Your task to perform on an android device: What's the weather like in Paris? Image 0: 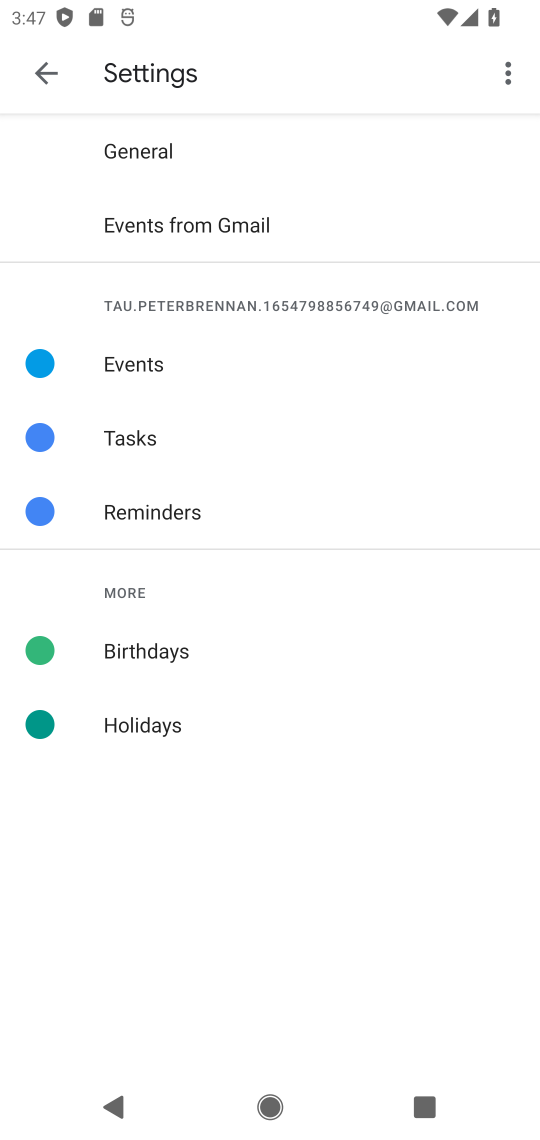
Step 0: press home button
Your task to perform on an android device: What's the weather like in Paris? Image 1: 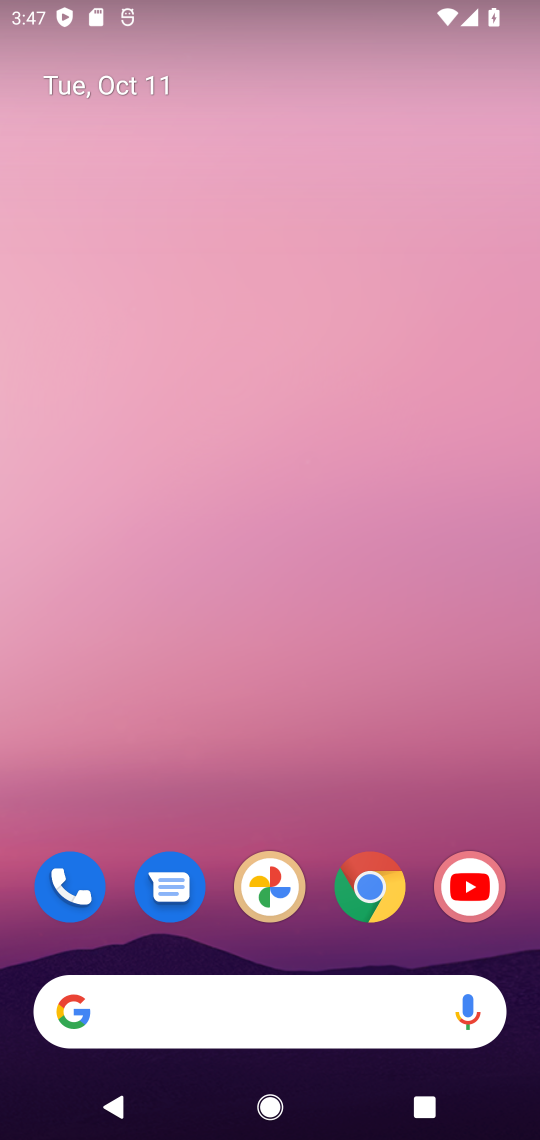
Step 1: click (372, 905)
Your task to perform on an android device: What's the weather like in Paris? Image 2: 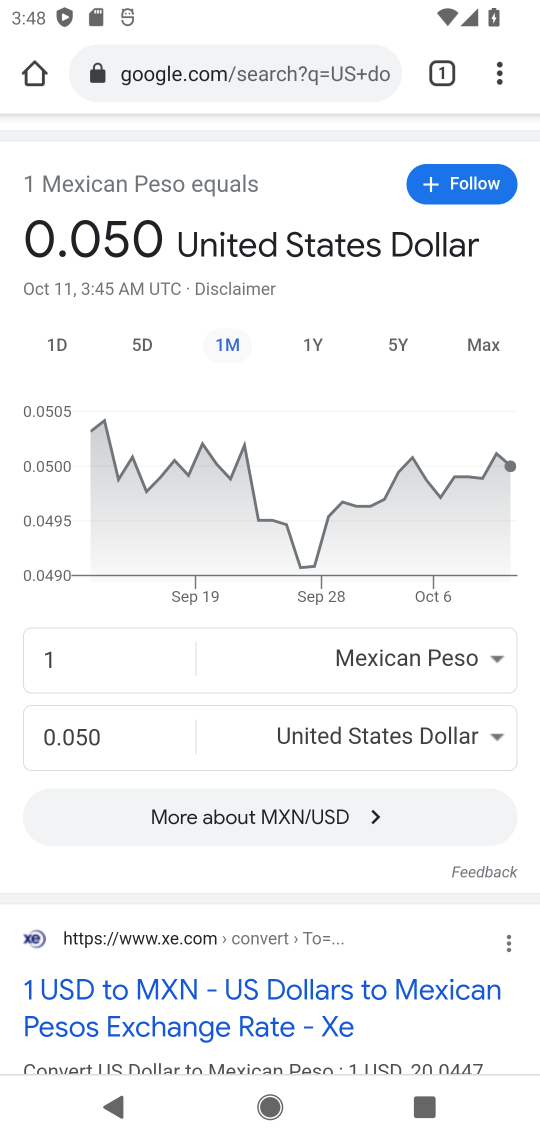
Step 2: click (199, 79)
Your task to perform on an android device: What's the weather like in Paris? Image 3: 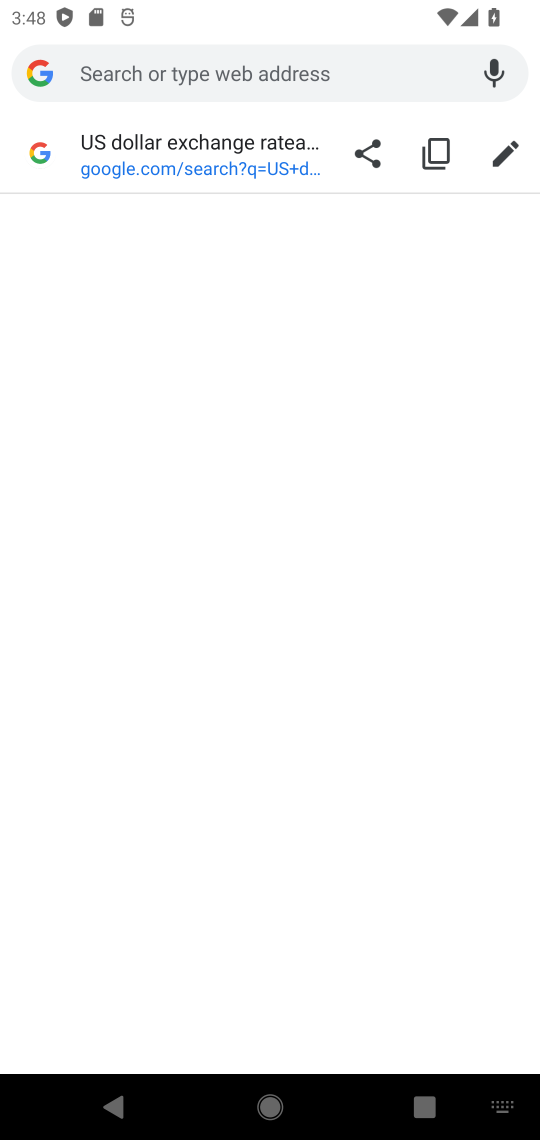
Step 3: type "weather in paris"
Your task to perform on an android device: What's the weather like in Paris? Image 4: 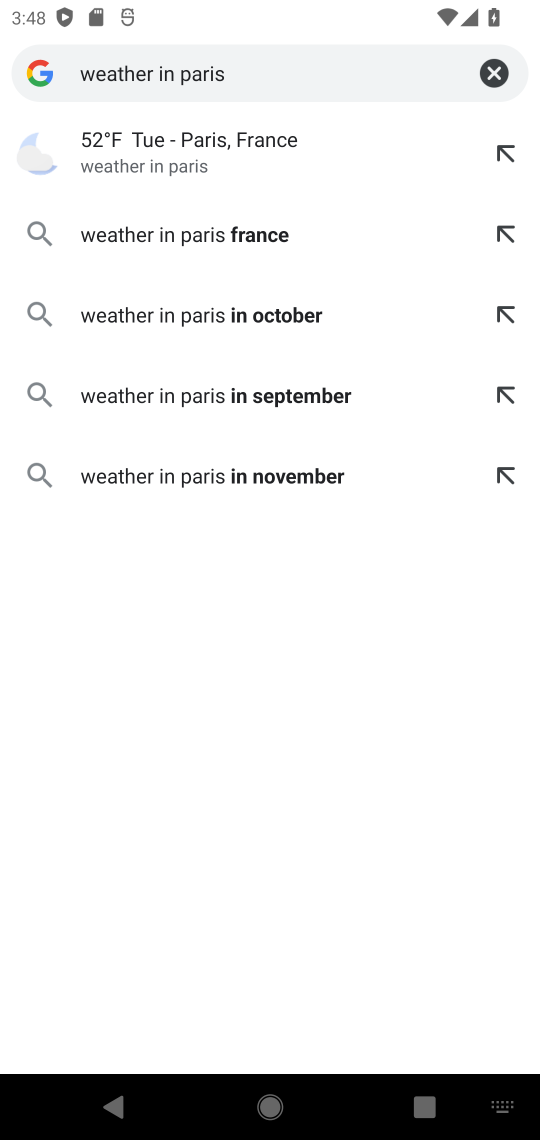
Step 4: click (178, 174)
Your task to perform on an android device: What's the weather like in Paris? Image 5: 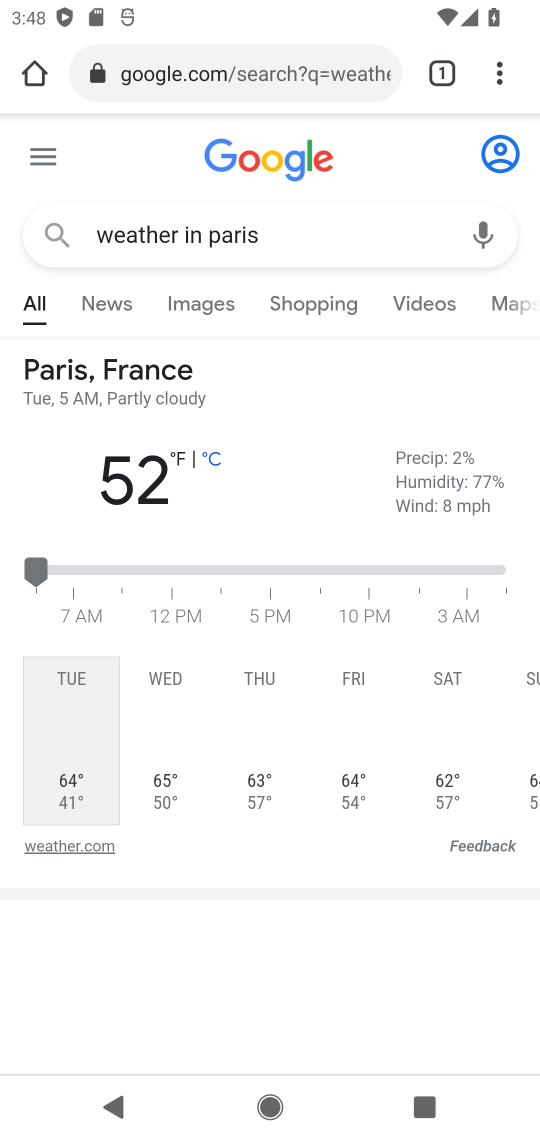
Step 5: task complete